Your task to perform on an android device: open sync settings in chrome Image 0: 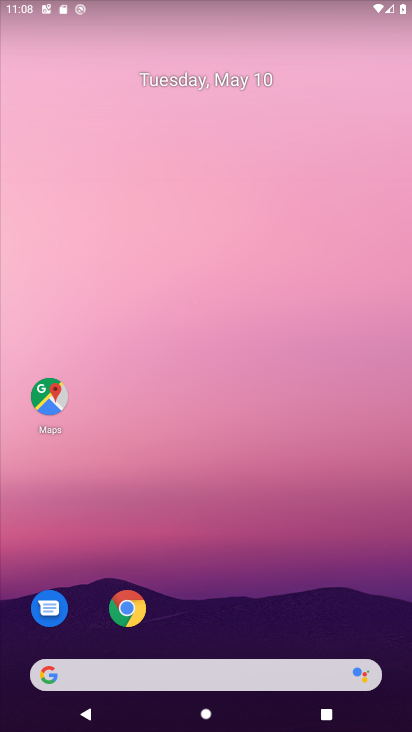
Step 0: click (141, 610)
Your task to perform on an android device: open sync settings in chrome Image 1: 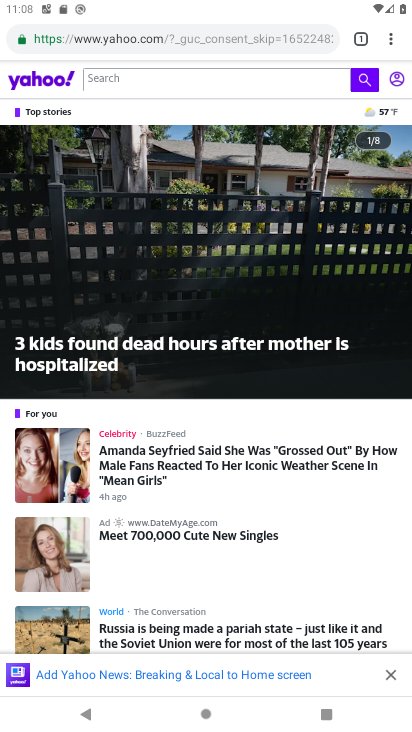
Step 1: drag from (390, 44) to (278, 519)
Your task to perform on an android device: open sync settings in chrome Image 2: 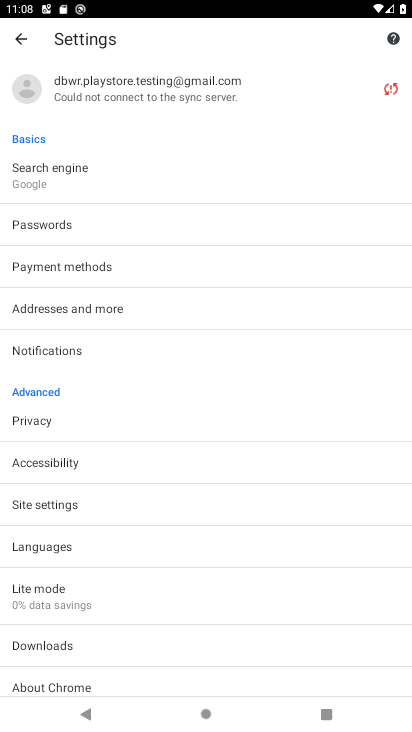
Step 2: click (110, 96)
Your task to perform on an android device: open sync settings in chrome Image 3: 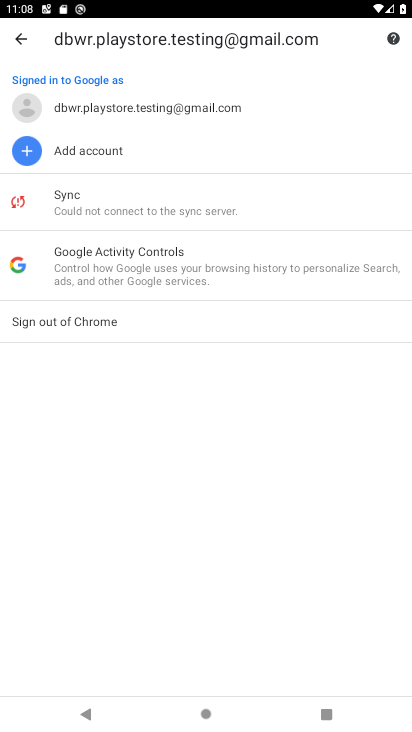
Step 3: click (212, 203)
Your task to perform on an android device: open sync settings in chrome Image 4: 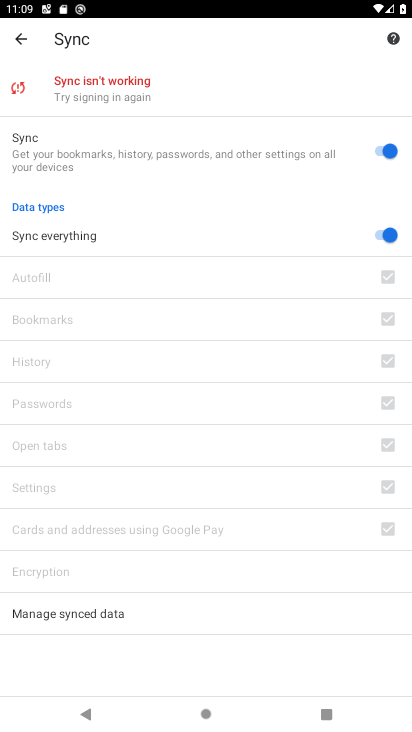
Step 4: task complete